Your task to perform on an android device: Open the Play Movies app and select the watchlist tab. Image 0: 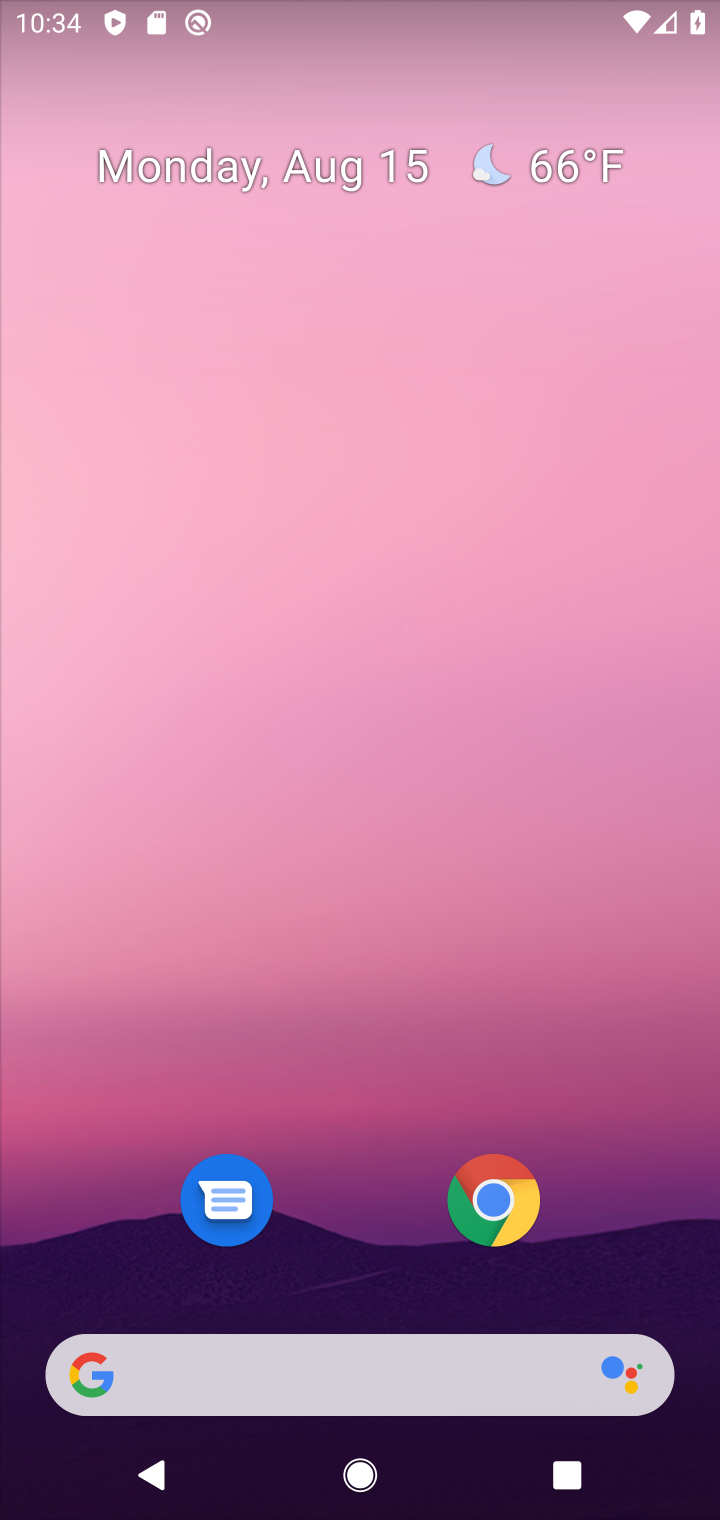
Step 0: drag from (372, 959) to (322, 82)
Your task to perform on an android device: Open the Play Movies app and select the watchlist tab. Image 1: 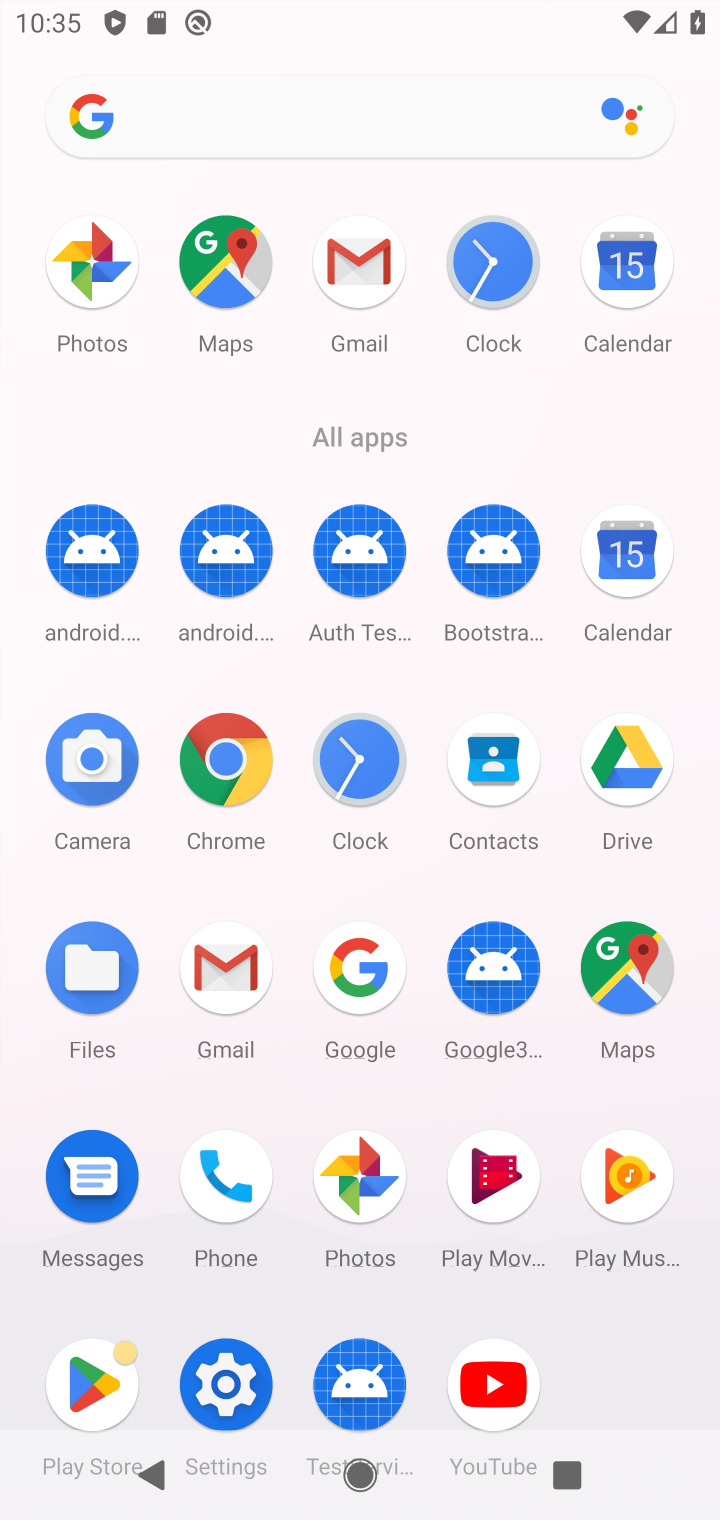
Step 1: click (493, 1241)
Your task to perform on an android device: Open the Play Movies app and select the watchlist tab. Image 2: 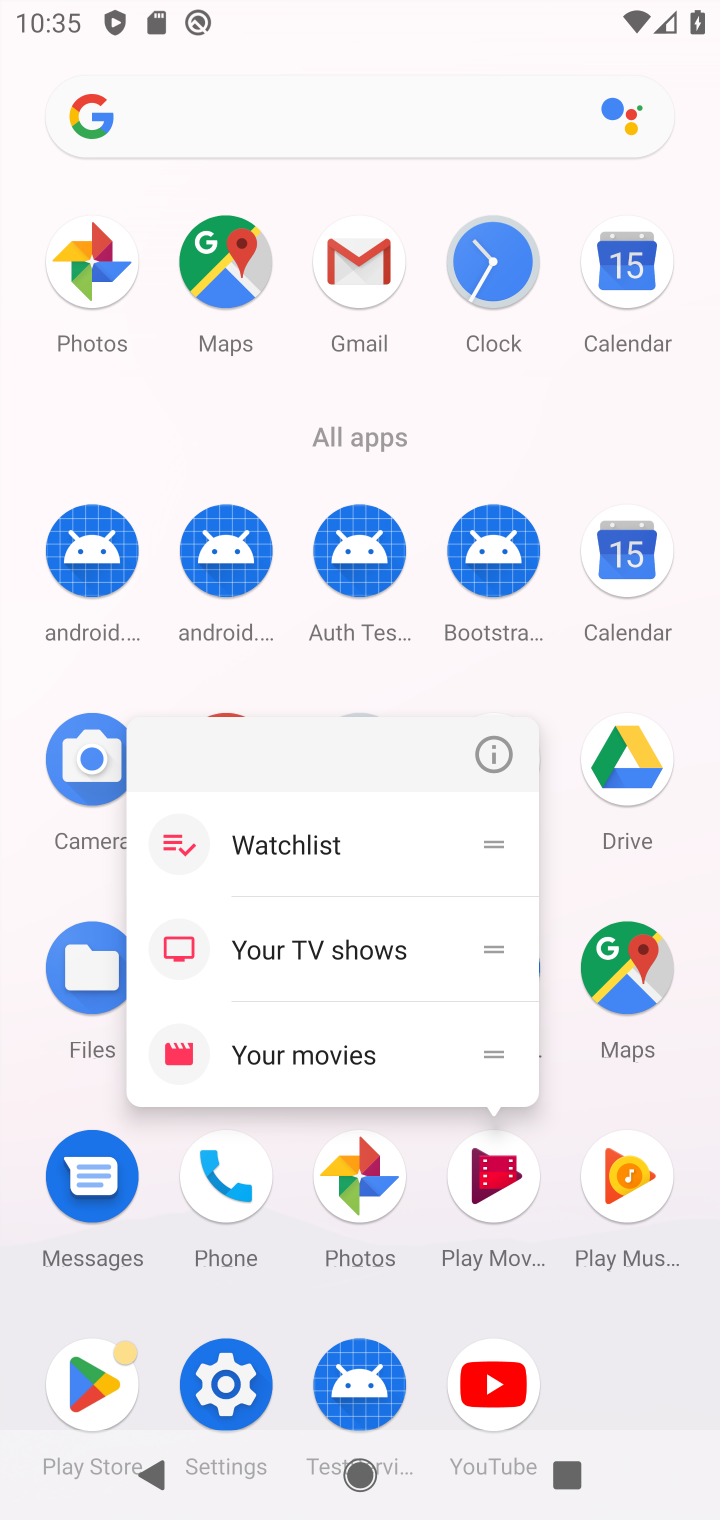
Step 2: click (492, 1221)
Your task to perform on an android device: Open the Play Movies app and select the watchlist tab. Image 3: 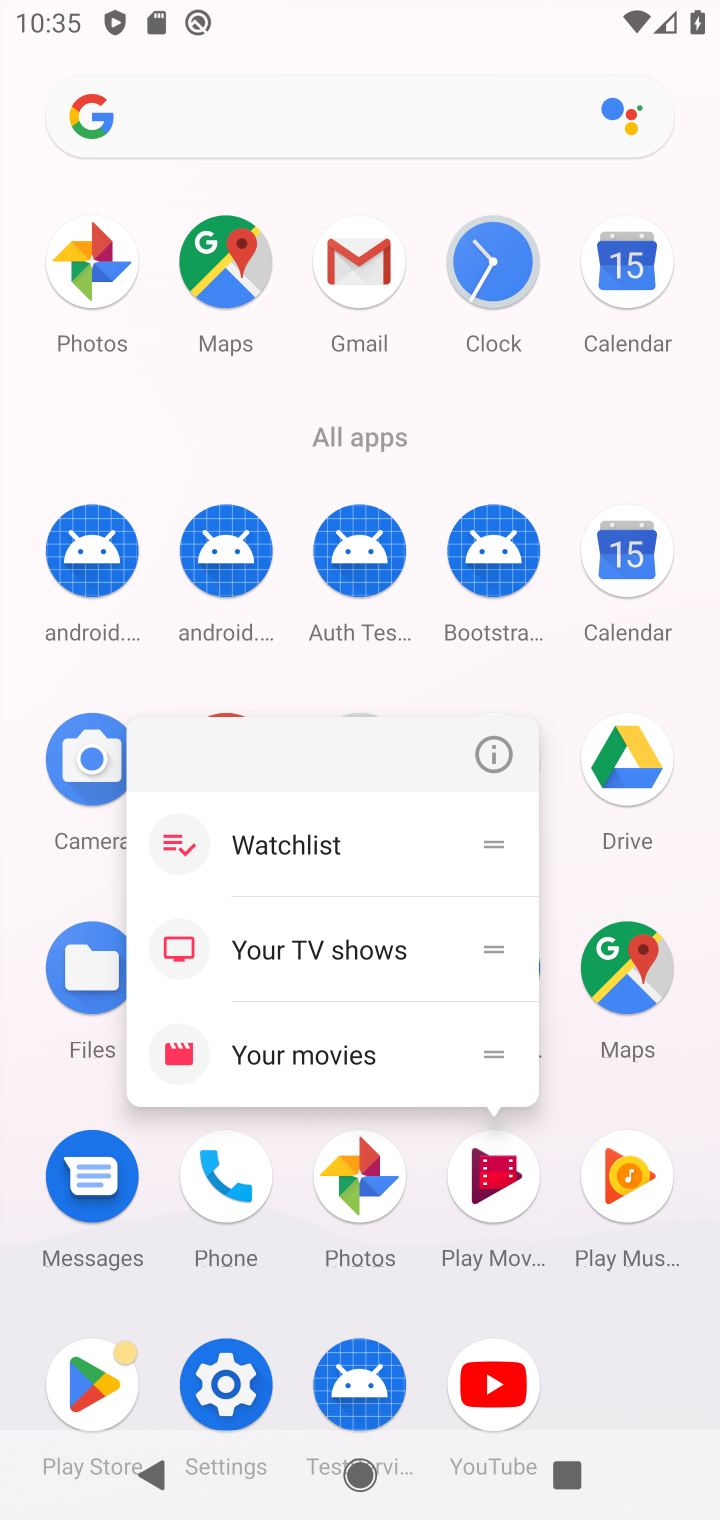
Step 3: click (508, 1214)
Your task to perform on an android device: Open the Play Movies app and select the watchlist tab. Image 4: 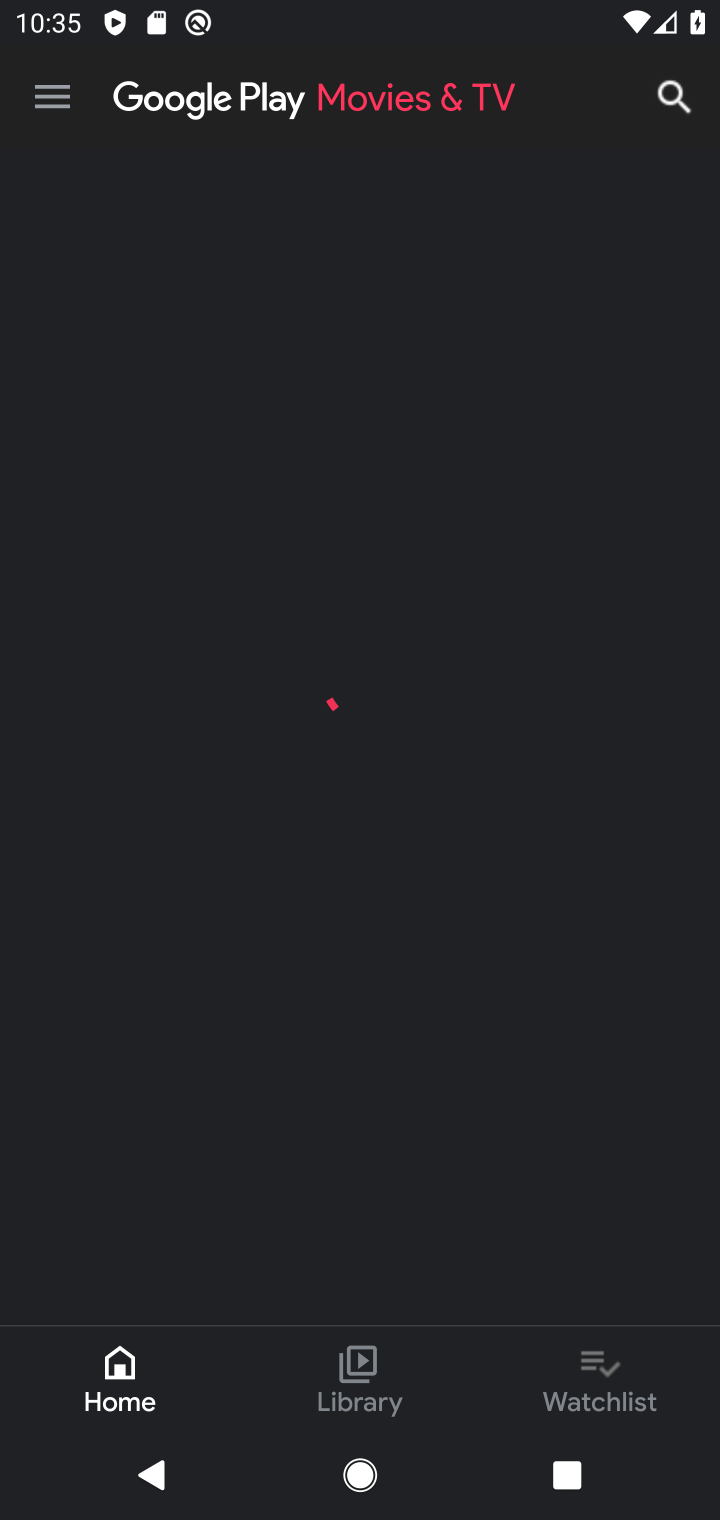
Step 4: click (575, 1361)
Your task to perform on an android device: Open the Play Movies app and select the watchlist tab. Image 5: 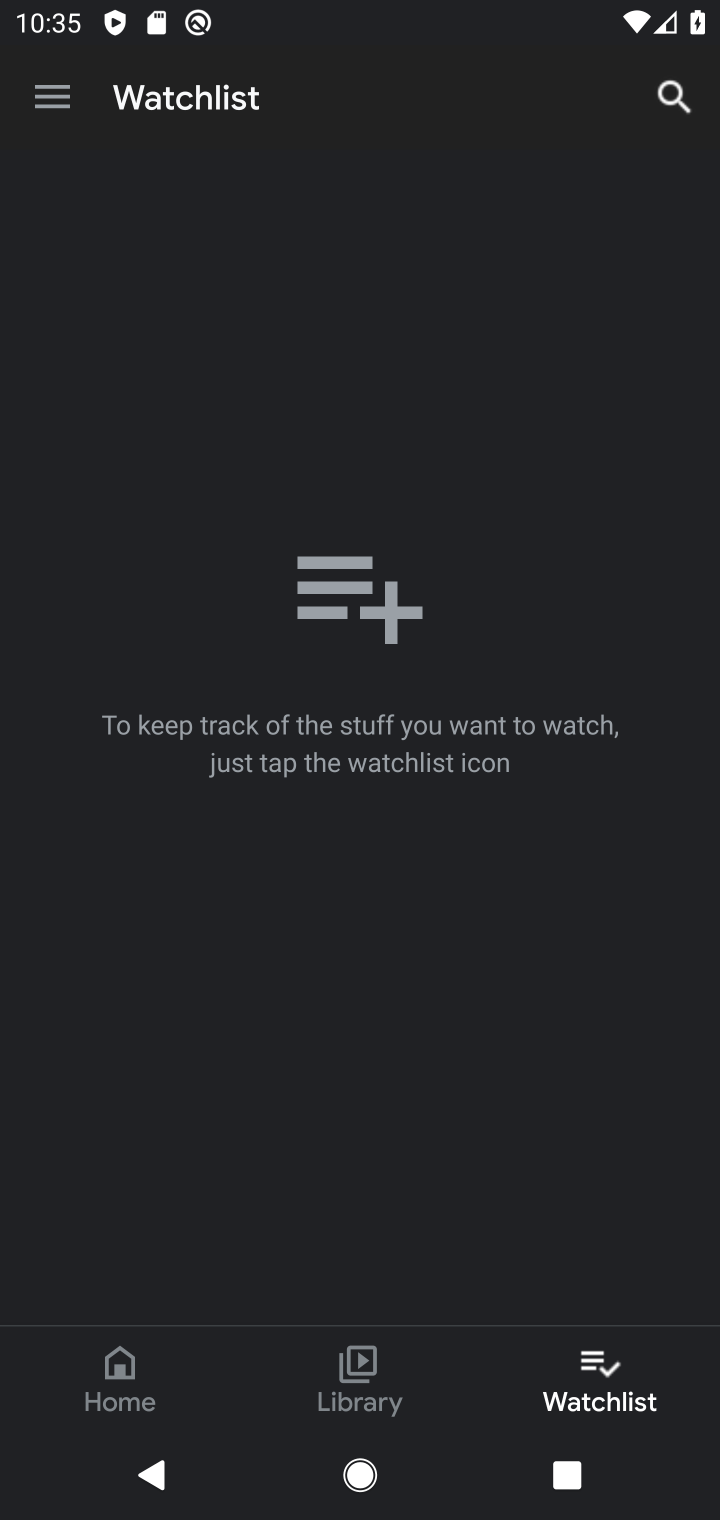
Step 5: task complete